Your task to perform on an android device: Open the phone app and click the voicemail tab. Image 0: 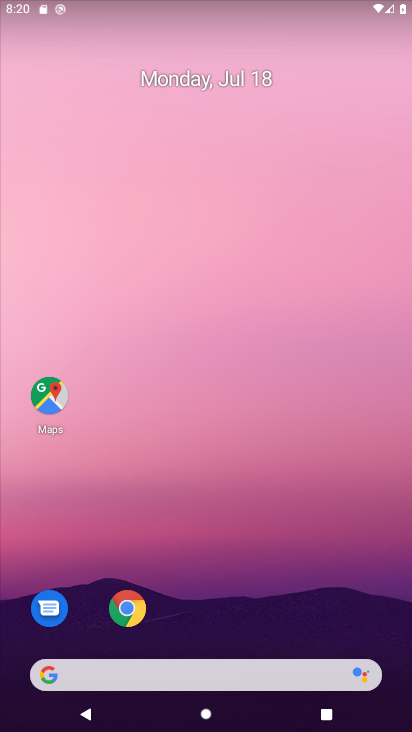
Step 0: drag from (223, 678) to (396, 185)
Your task to perform on an android device: Open the phone app and click the voicemail tab. Image 1: 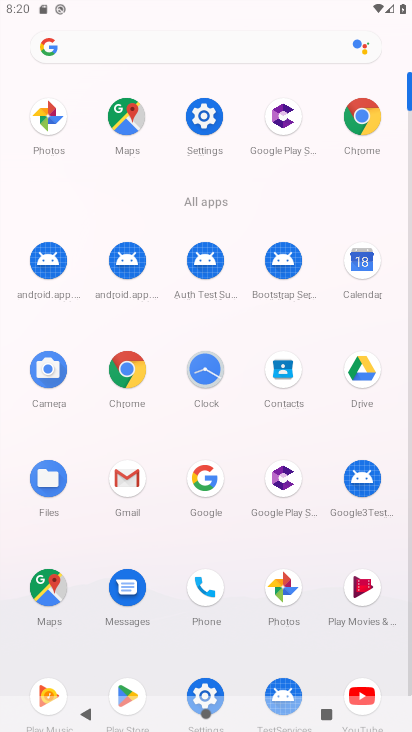
Step 1: click (202, 588)
Your task to perform on an android device: Open the phone app and click the voicemail tab. Image 2: 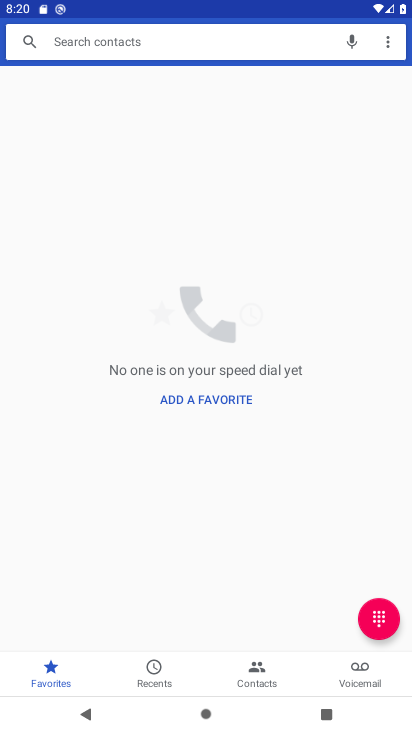
Step 2: click (360, 669)
Your task to perform on an android device: Open the phone app and click the voicemail tab. Image 3: 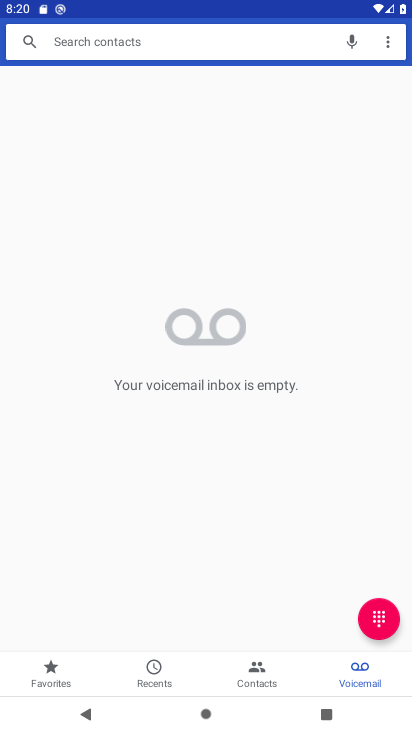
Step 3: task complete